Your task to perform on an android device: clear all cookies in the chrome app Image 0: 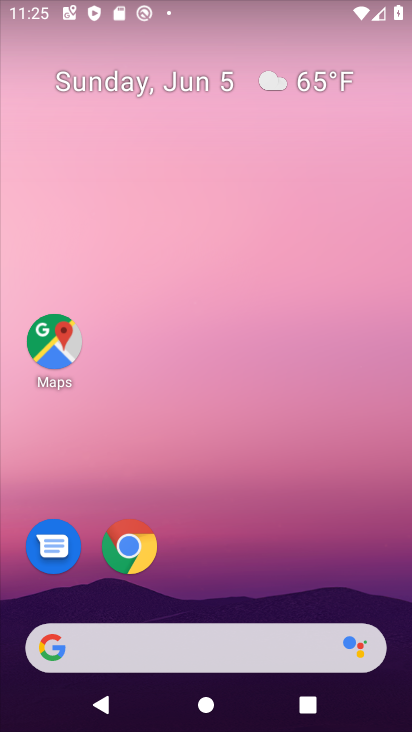
Step 0: click (123, 562)
Your task to perform on an android device: clear all cookies in the chrome app Image 1: 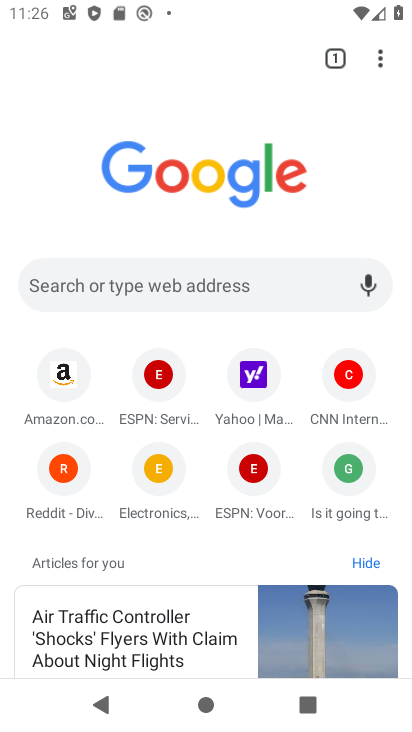
Step 1: click (378, 65)
Your task to perform on an android device: clear all cookies in the chrome app Image 2: 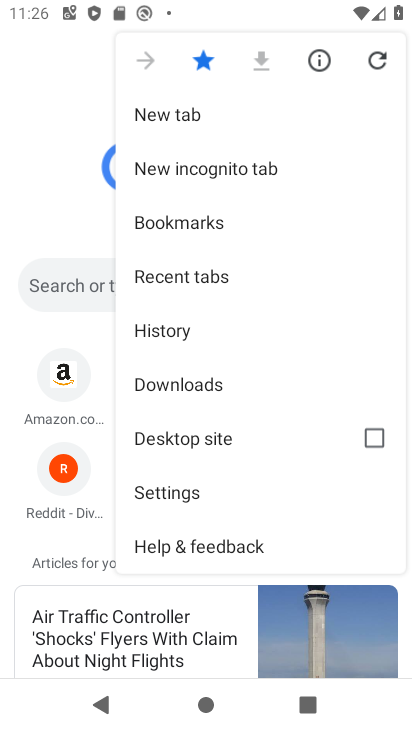
Step 2: click (167, 487)
Your task to perform on an android device: clear all cookies in the chrome app Image 3: 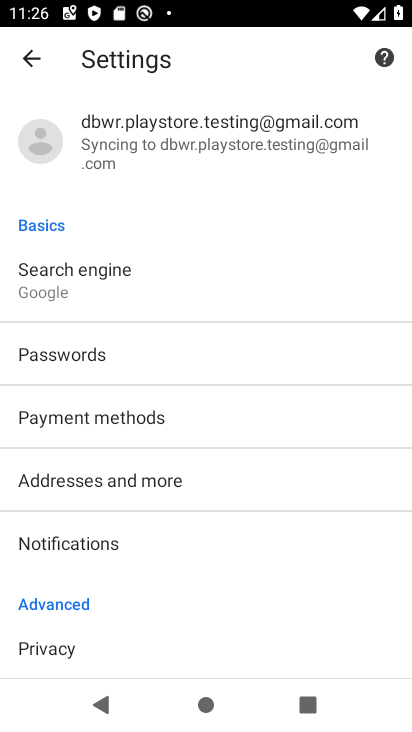
Step 3: drag from (86, 652) to (65, 258)
Your task to perform on an android device: clear all cookies in the chrome app Image 4: 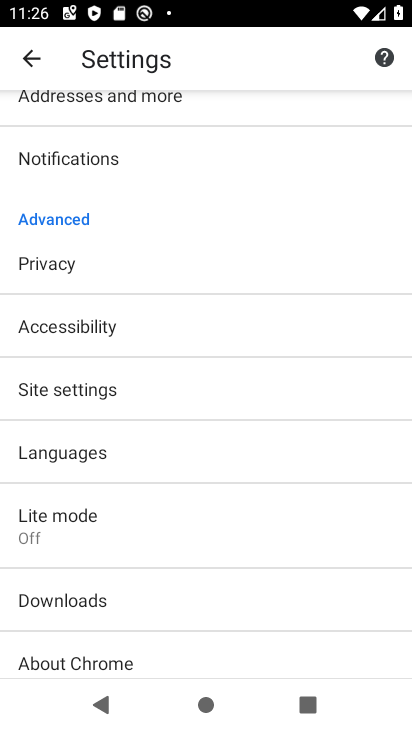
Step 4: click (50, 258)
Your task to perform on an android device: clear all cookies in the chrome app Image 5: 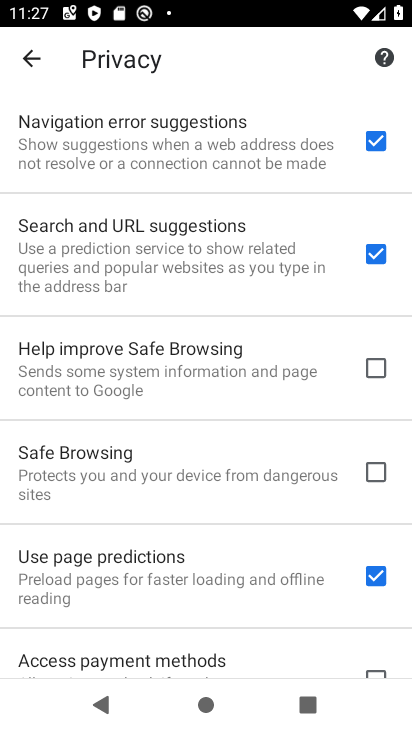
Step 5: drag from (146, 611) to (150, 314)
Your task to perform on an android device: clear all cookies in the chrome app Image 6: 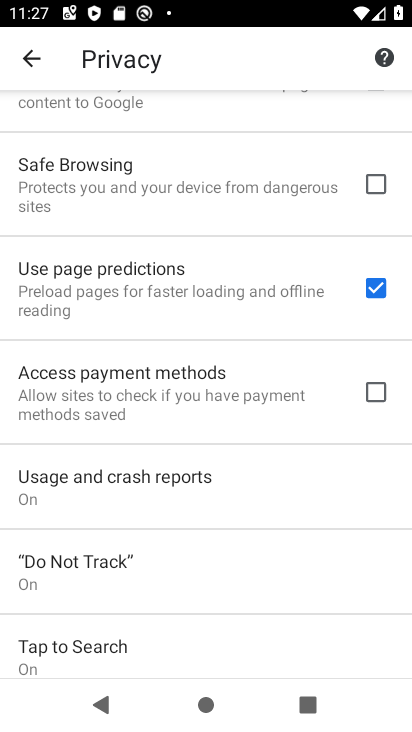
Step 6: drag from (102, 661) to (102, 403)
Your task to perform on an android device: clear all cookies in the chrome app Image 7: 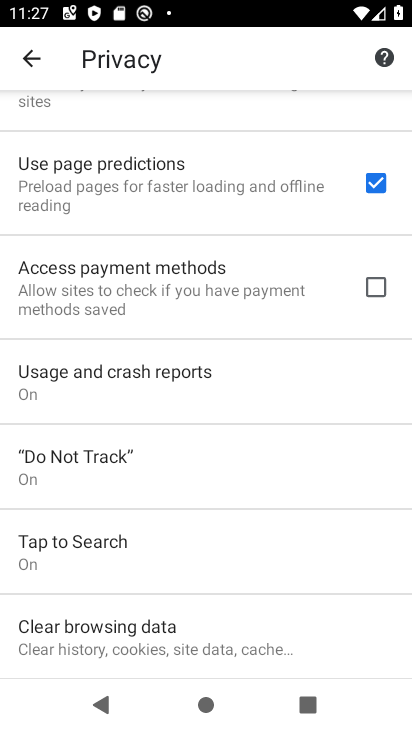
Step 7: click (93, 643)
Your task to perform on an android device: clear all cookies in the chrome app Image 8: 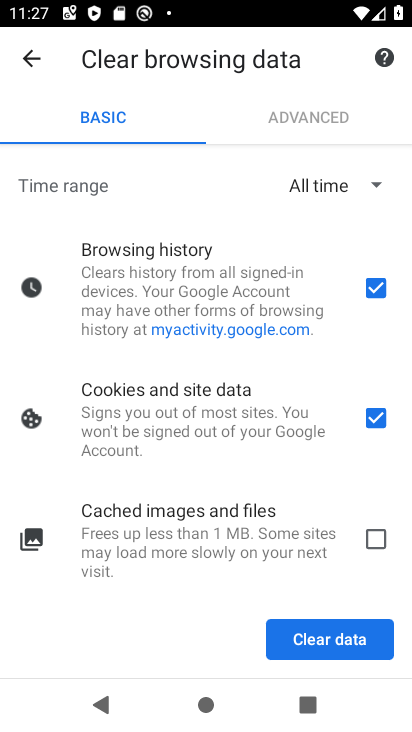
Step 8: click (319, 645)
Your task to perform on an android device: clear all cookies in the chrome app Image 9: 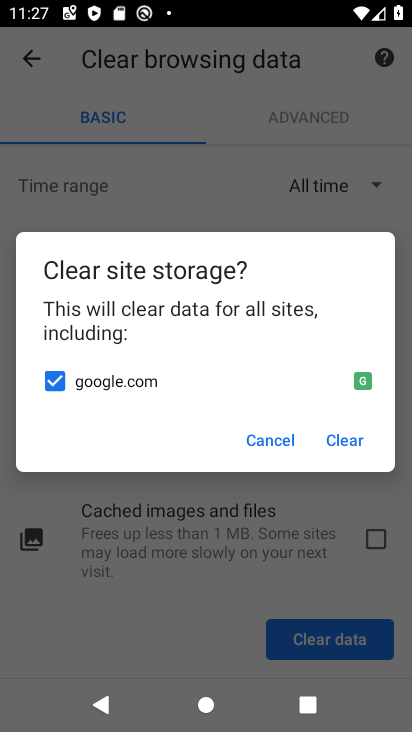
Step 9: click (344, 443)
Your task to perform on an android device: clear all cookies in the chrome app Image 10: 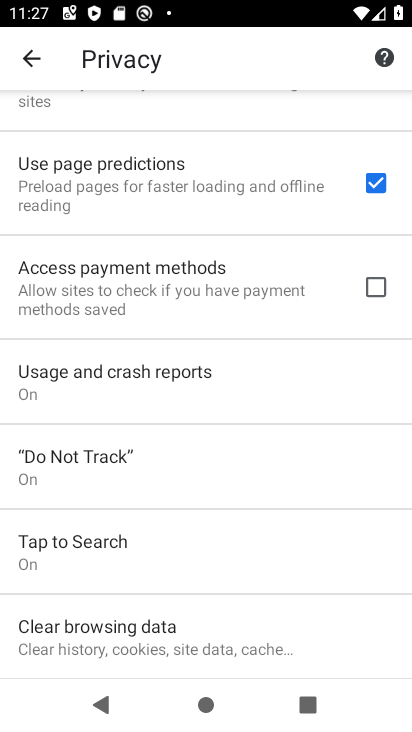
Step 10: task complete